Your task to perform on an android device: turn notification dots off Image 0: 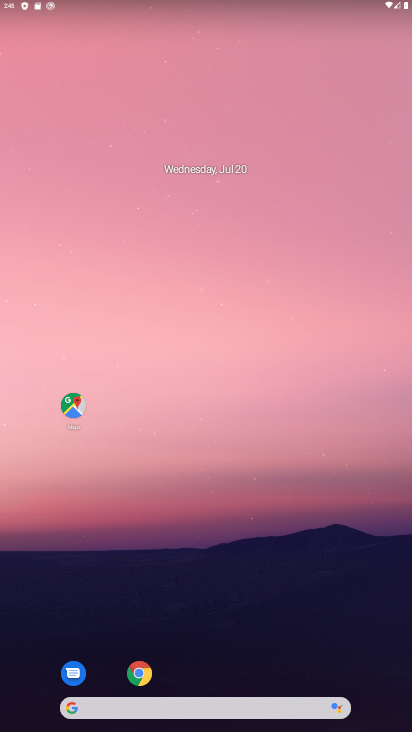
Step 0: drag from (255, 0) to (276, 437)
Your task to perform on an android device: turn notification dots off Image 1: 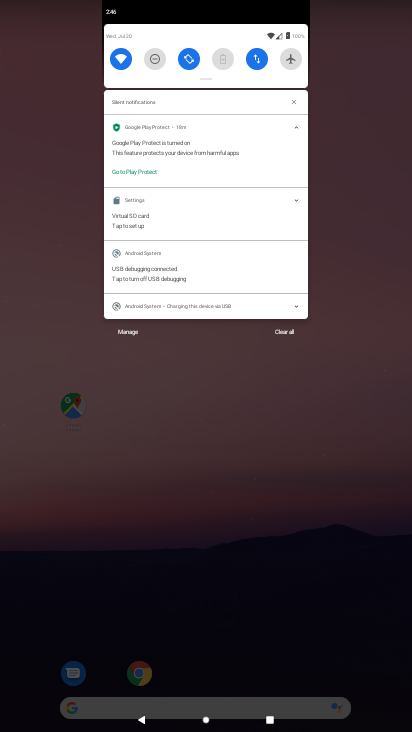
Step 1: task complete